Your task to perform on an android device: Go to Maps Image 0: 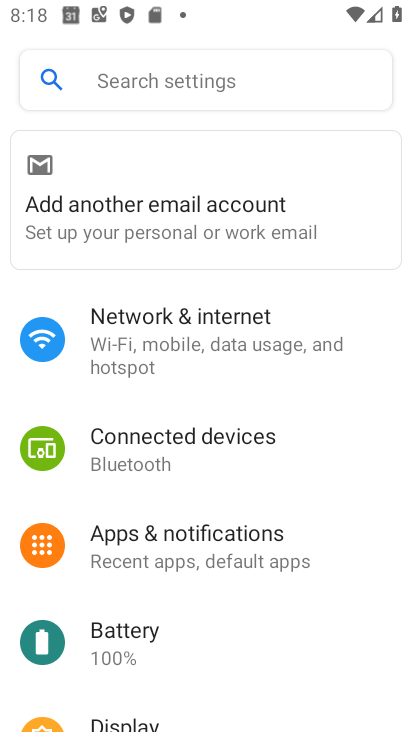
Step 0: press home button
Your task to perform on an android device: Go to Maps Image 1: 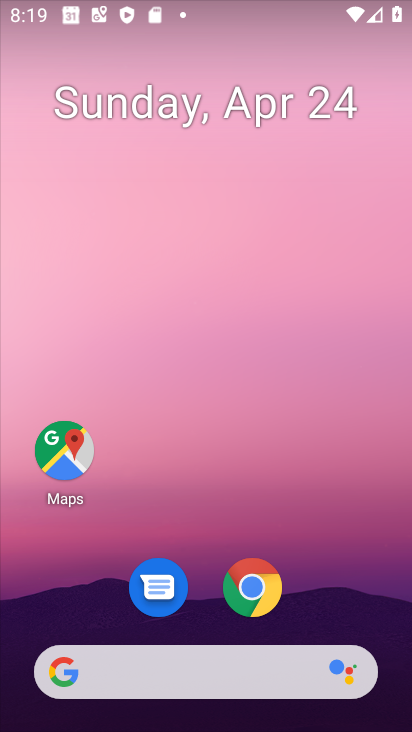
Step 1: click (83, 481)
Your task to perform on an android device: Go to Maps Image 2: 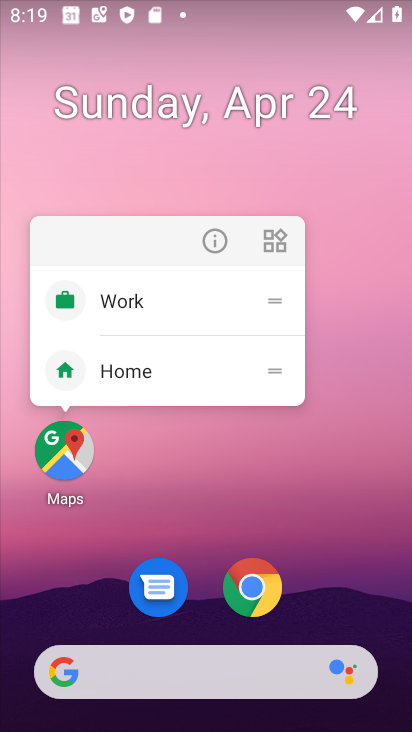
Step 2: click (74, 447)
Your task to perform on an android device: Go to Maps Image 3: 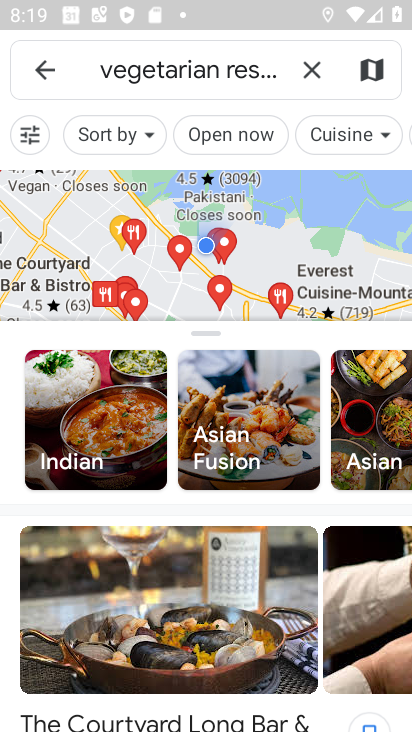
Step 3: task complete